Your task to perform on an android device: Open the stopwatch Image 0: 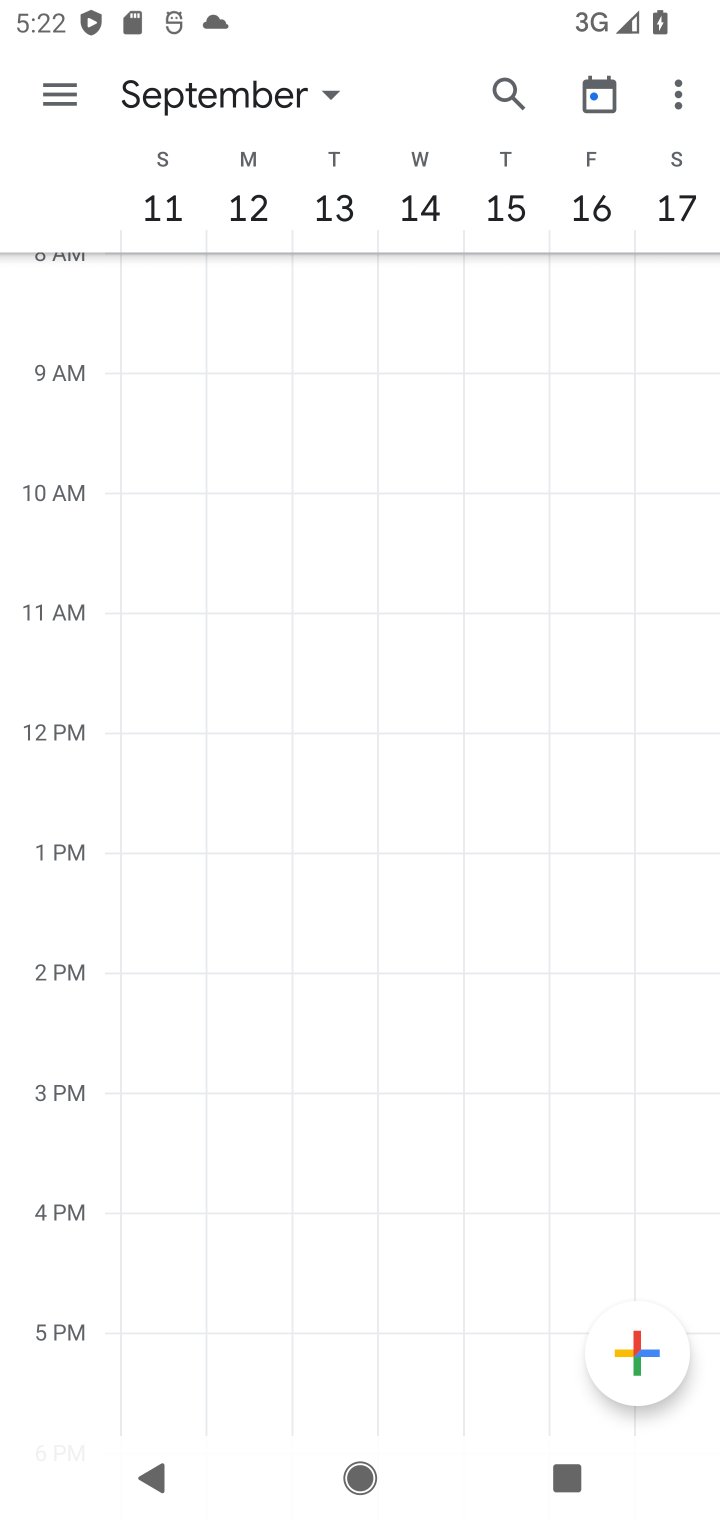
Step 0: press home button
Your task to perform on an android device: Open the stopwatch Image 1: 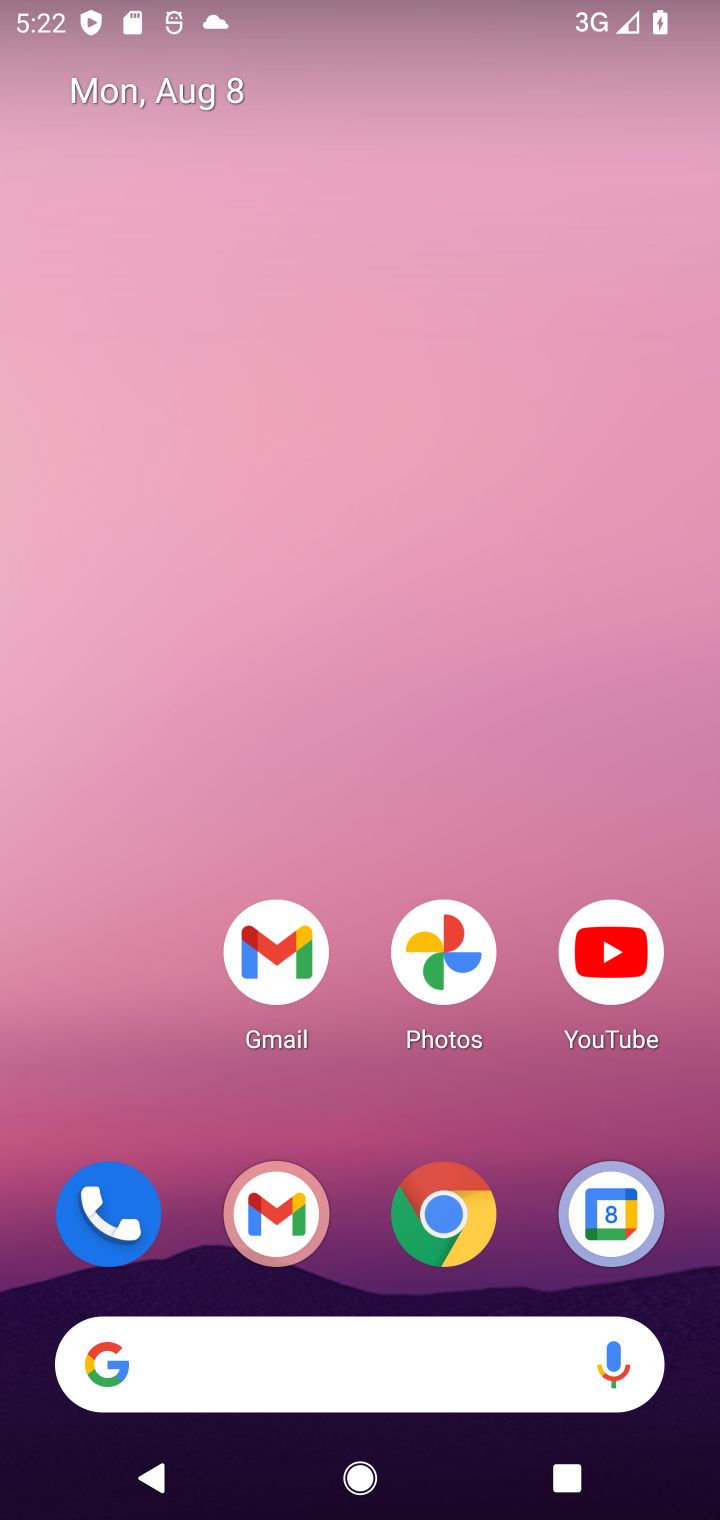
Step 1: drag from (379, 1165) to (349, 168)
Your task to perform on an android device: Open the stopwatch Image 2: 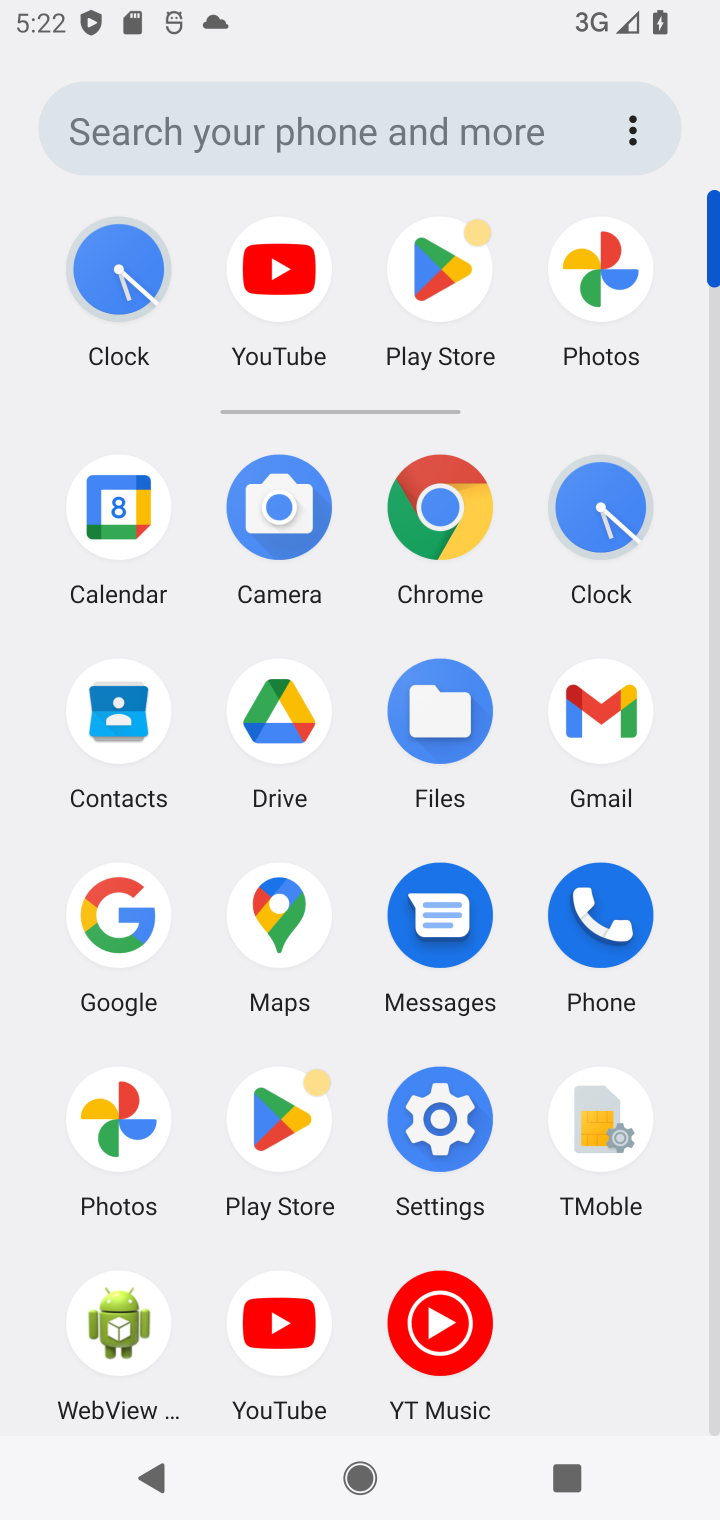
Step 2: click (600, 505)
Your task to perform on an android device: Open the stopwatch Image 3: 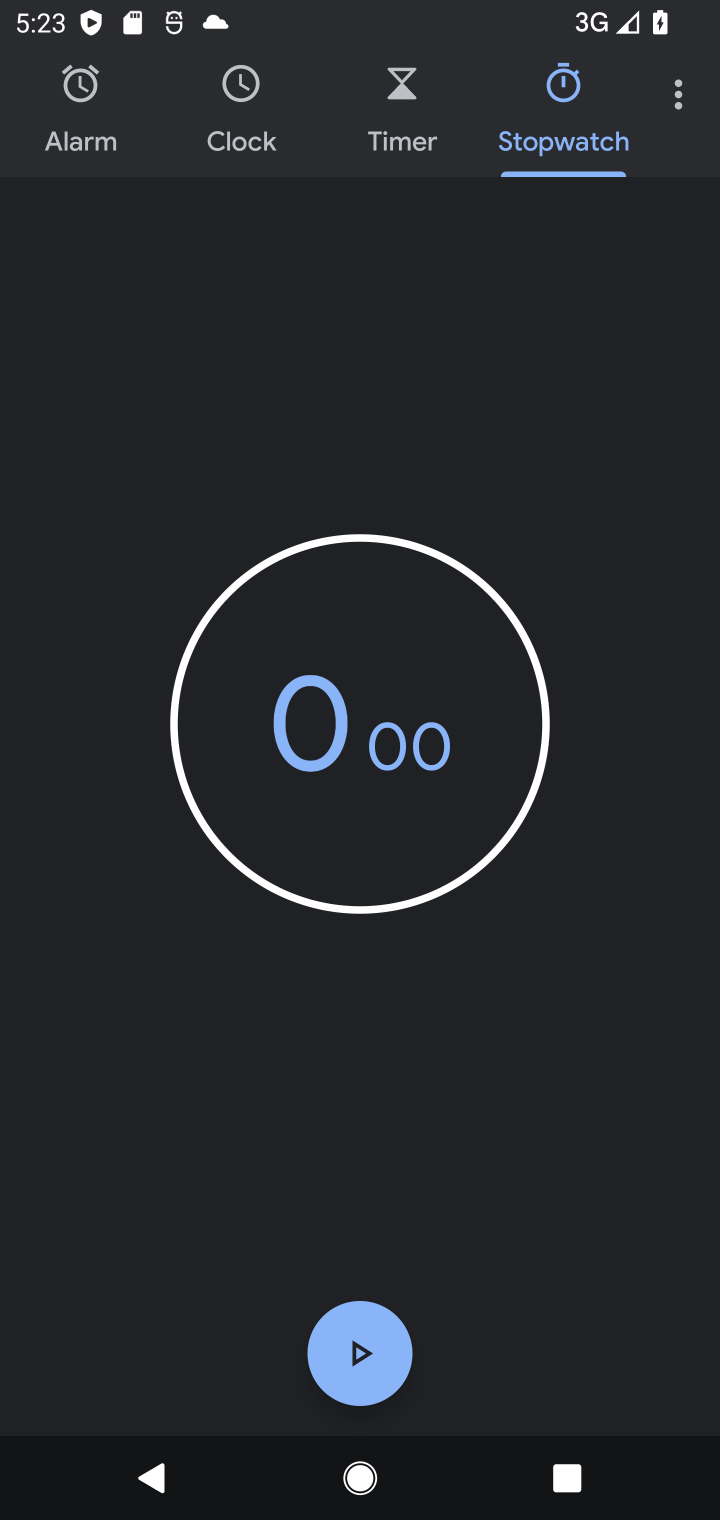
Step 3: task complete